Your task to perform on an android device: turn on the 12-hour format for clock Image 0: 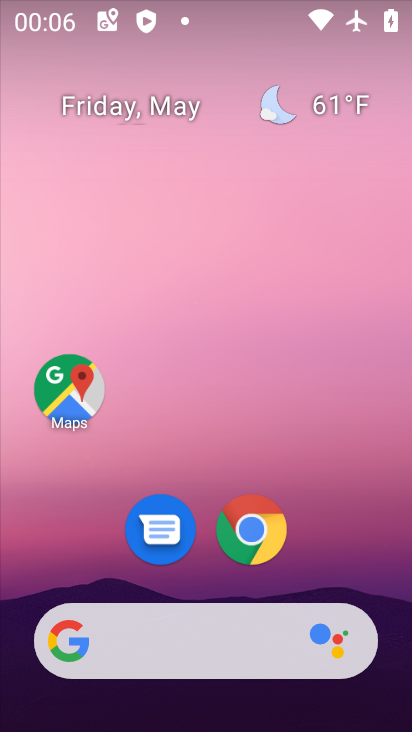
Step 0: drag from (343, 576) to (322, 78)
Your task to perform on an android device: turn on the 12-hour format for clock Image 1: 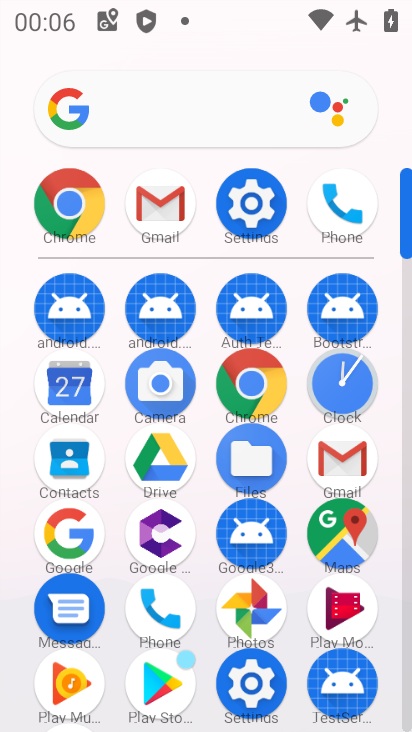
Step 1: click (254, 178)
Your task to perform on an android device: turn on the 12-hour format for clock Image 2: 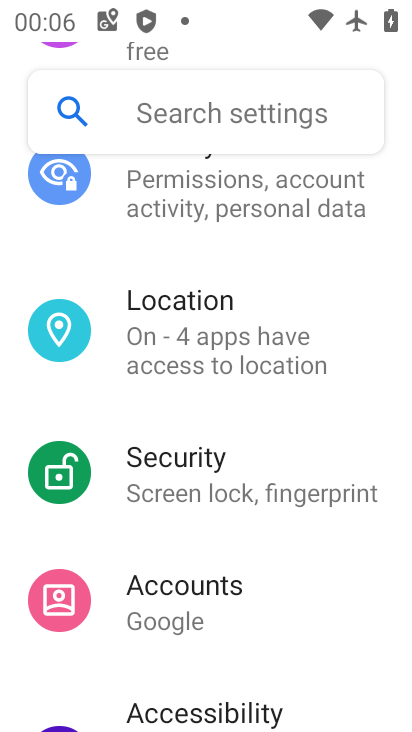
Step 2: drag from (205, 554) to (202, 335)
Your task to perform on an android device: turn on the 12-hour format for clock Image 3: 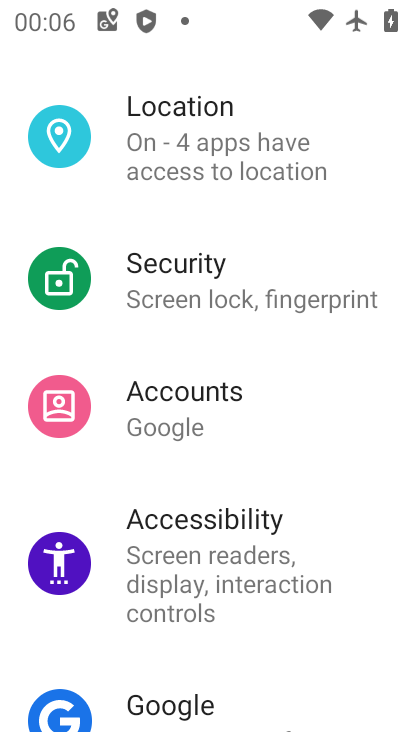
Step 3: press home button
Your task to perform on an android device: turn on the 12-hour format for clock Image 4: 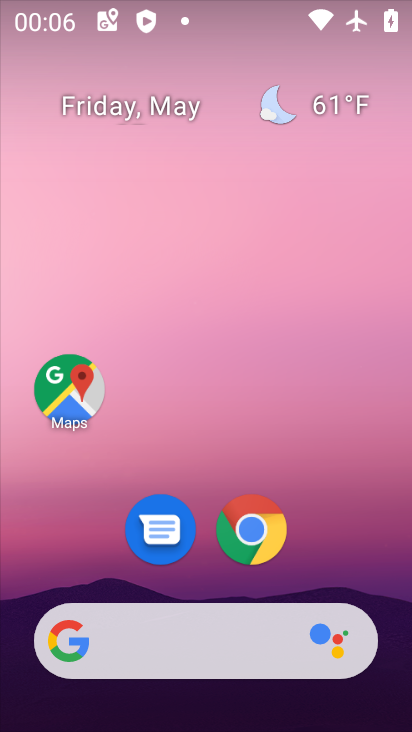
Step 4: drag from (314, 585) to (307, 347)
Your task to perform on an android device: turn on the 12-hour format for clock Image 5: 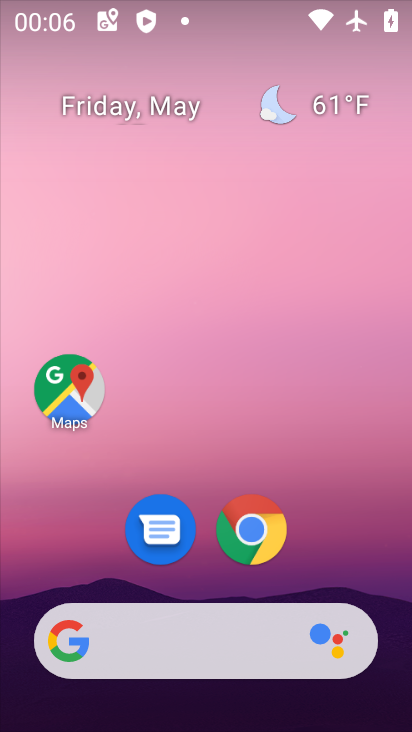
Step 5: drag from (362, 596) to (311, 151)
Your task to perform on an android device: turn on the 12-hour format for clock Image 6: 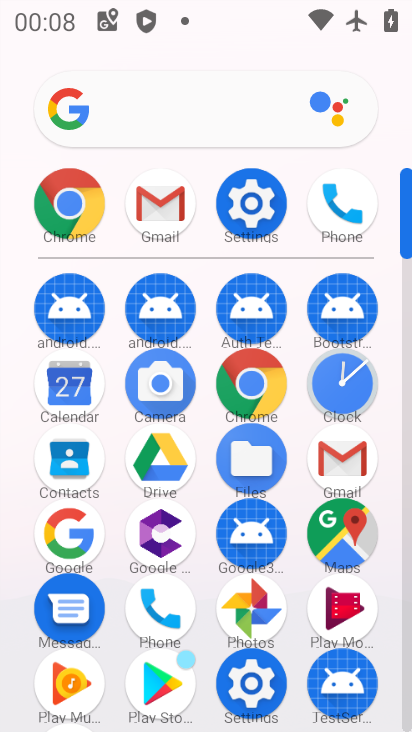
Step 6: click (264, 233)
Your task to perform on an android device: turn on the 12-hour format for clock Image 7: 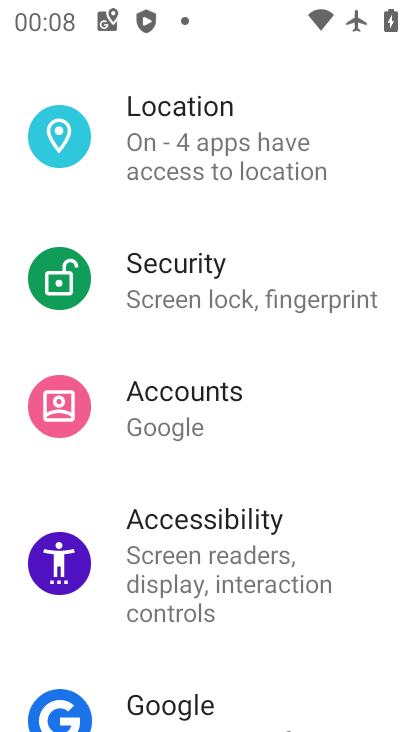
Step 7: press home button
Your task to perform on an android device: turn on the 12-hour format for clock Image 8: 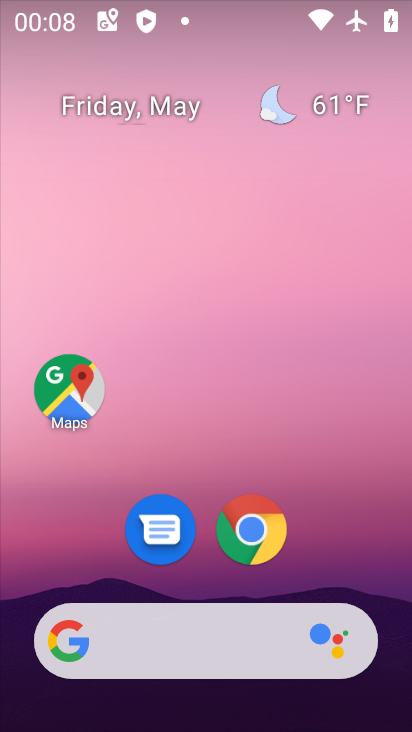
Step 8: drag from (351, 546) to (324, 161)
Your task to perform on an android device: turn on the 12-hour format for clock Image 9: 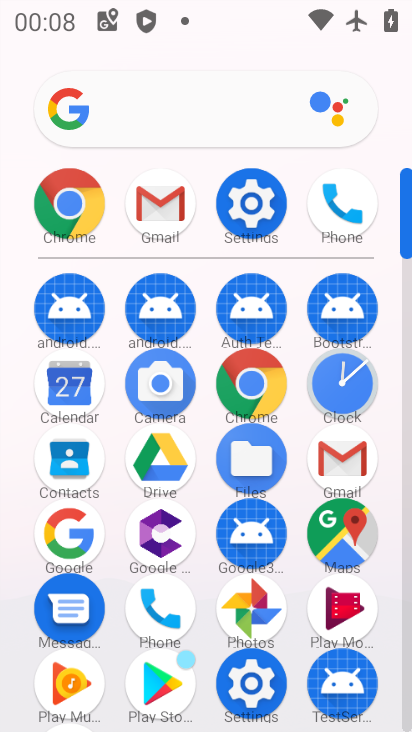
Step 9: click (359, 388)
Your task to perform on an android device: turn on the 12-hour format for clock Image 10: 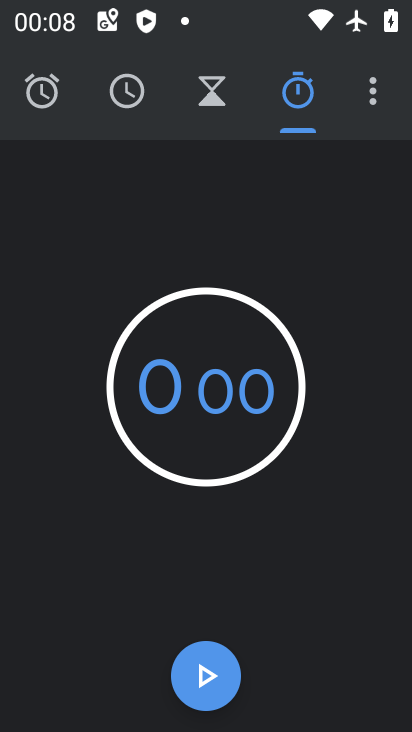
Step 10: click (372, 100)
Your task to perform on an android device: turn on the 12-hour format for clock Image 11: 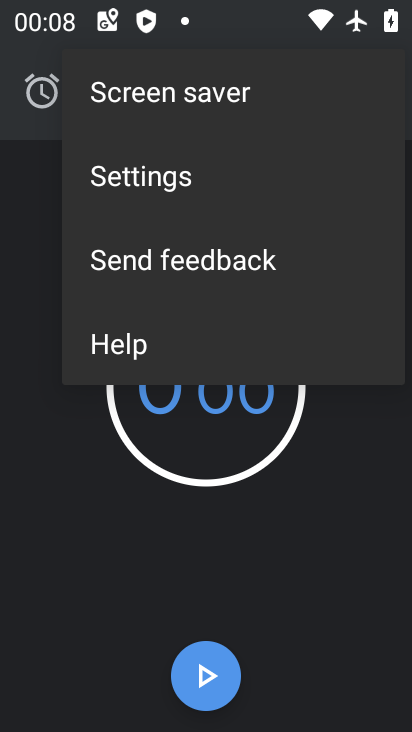
Step 11: click (253, 188)
Your task to perform on an android device: turn on the 12-hour format for clock Image 12: 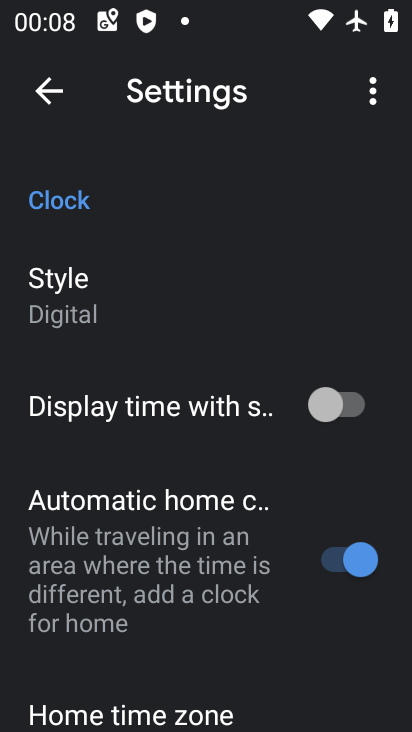
Step 12: drag from (146, 605) to (156, 297)
Your task to perform on an android device: turn on the 12-hour format for clock Image 13: 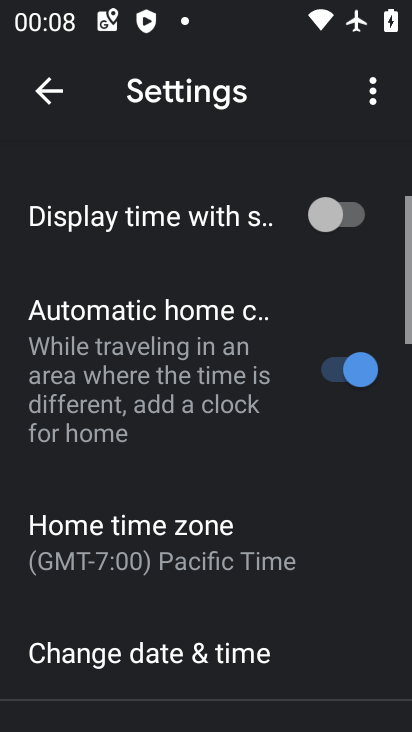
Step 13: click (156, 297)
Your task to perform on an android device: turn on the 12-hour format for clock Image 14: 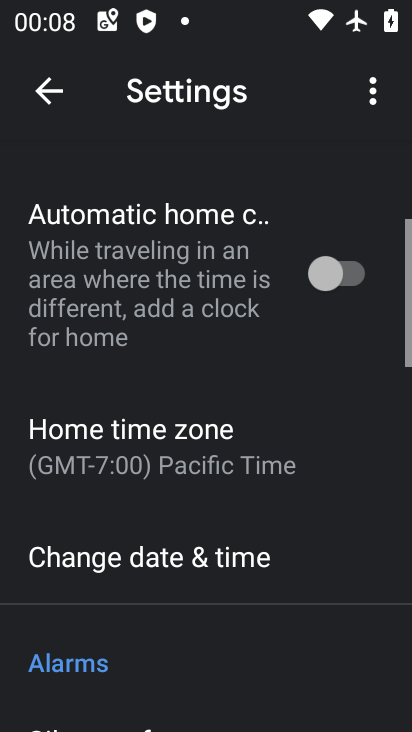
Step 14: click (238, 581)
Your task to perform on an android device: turn on the 12-hour format for clock Image 15: 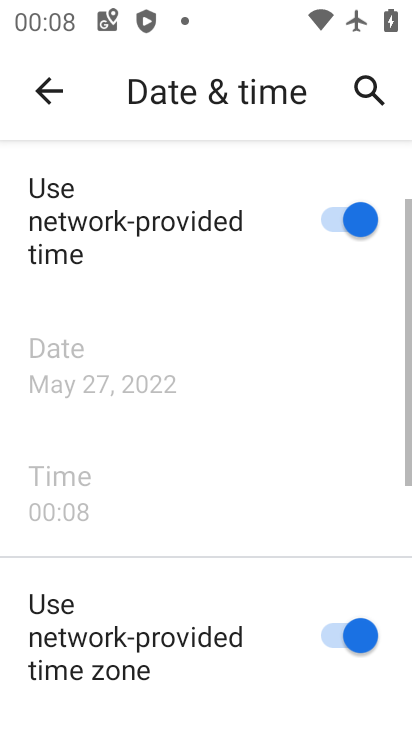
Step 15: click (241, 638)
Your task to perform on an android device: turn on the 12-hour format for clock Image 16: 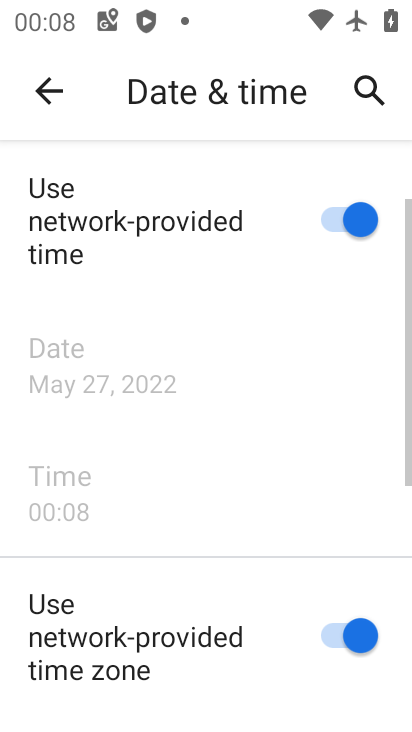
Step 16: drag from (241, 638) to (241, 287)
Your task to perform on an android device: turn on the 12-hour format for clock Image 17: 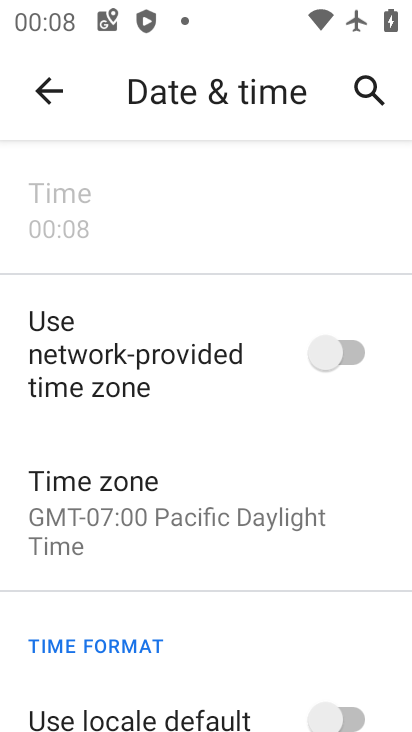
Step 17: drag from (215, 619) to (237, 301)
Your task to perform on an android device: turn on the 12-hour format for clock Image 18: 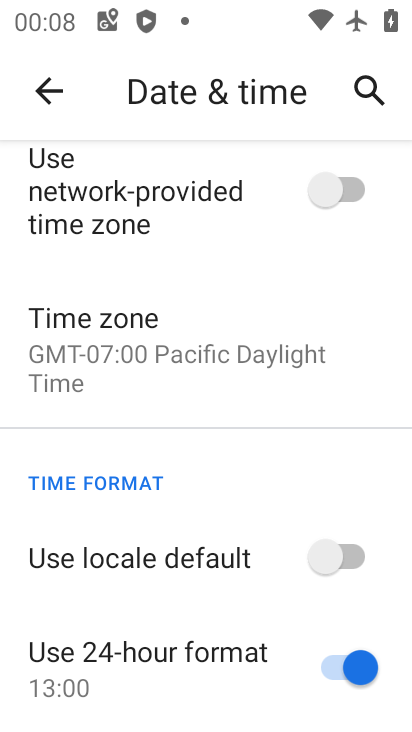
Step 18: click (326, 631)
Your task to perform on an android device: turn on the 12-hour format for clock Image 19: 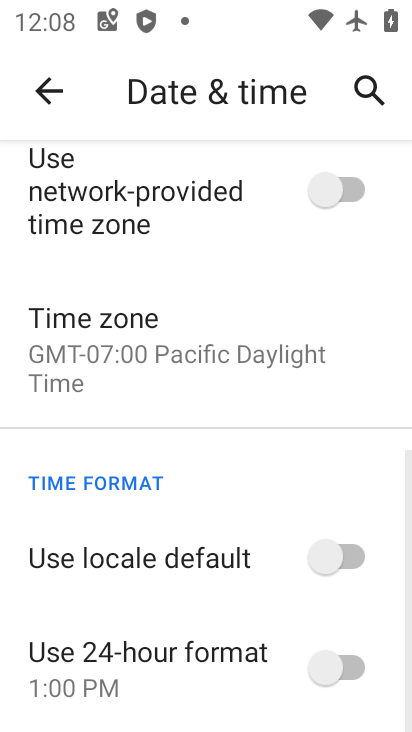
Step 19: task complete